Your task to perform on an android device: Open Youtube and go to "Your channel" Image 0: 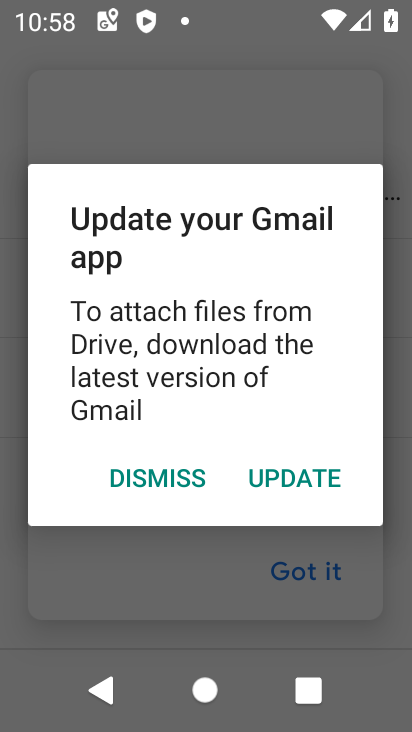
Step 0: press home button
Your task to perform on an android device: Open Youtube and go to "Your channel" Image 1: 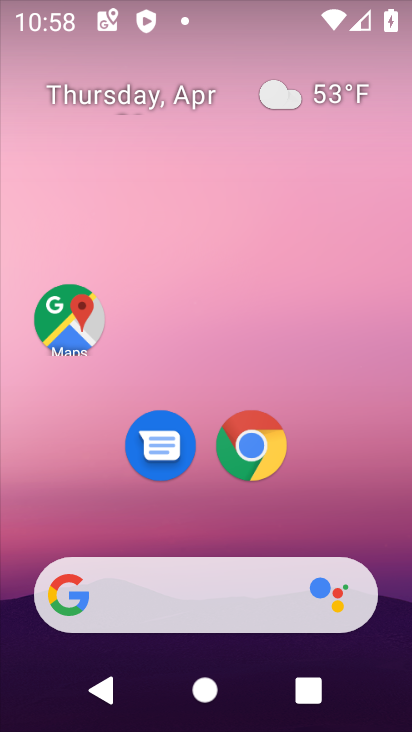
Step 1: drag from (156, 594) to (332, 94)
Your task to perform on an android device: Open Youtube and go to "Your channel" Image 2: 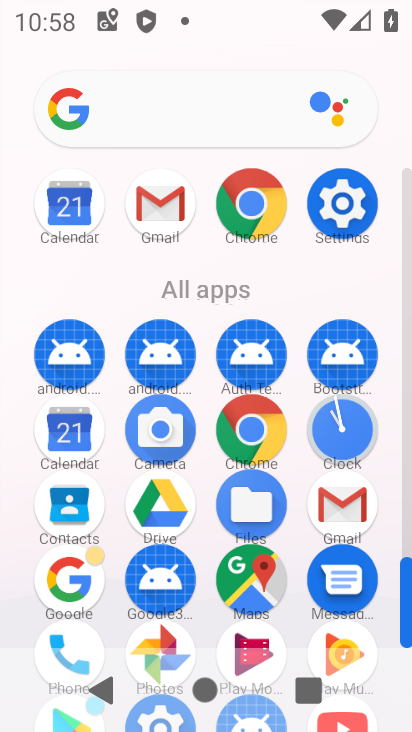
Step 2: drag from (203, 634) to (375, 168)
Your task to perform on an android device: Open Youtube and go to "Your channel" Image 3: 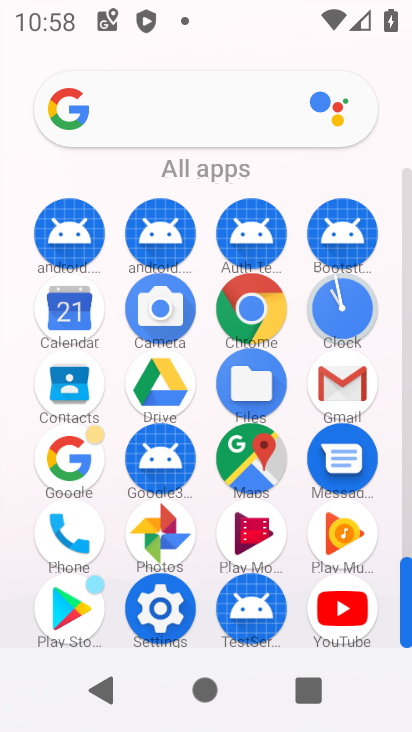
Step 3: click (343, 578)
Your task to perform on an android device: Open Youtube and go to "Your channel" Image 4: 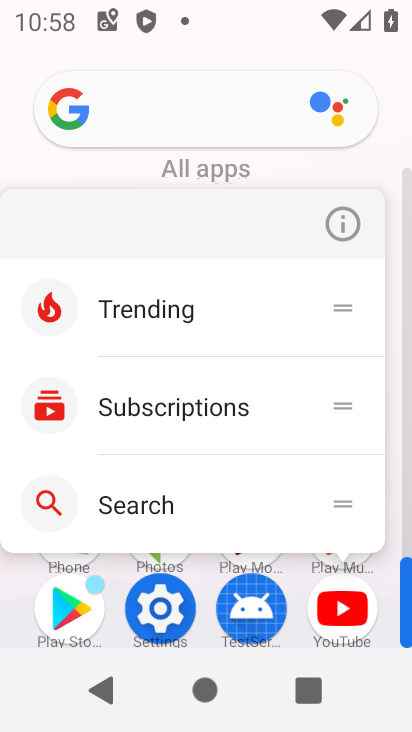
Step 4: click (336, 602)
Your task to perform on an android device: Open Youtube and go to "Your channel" Image 5: 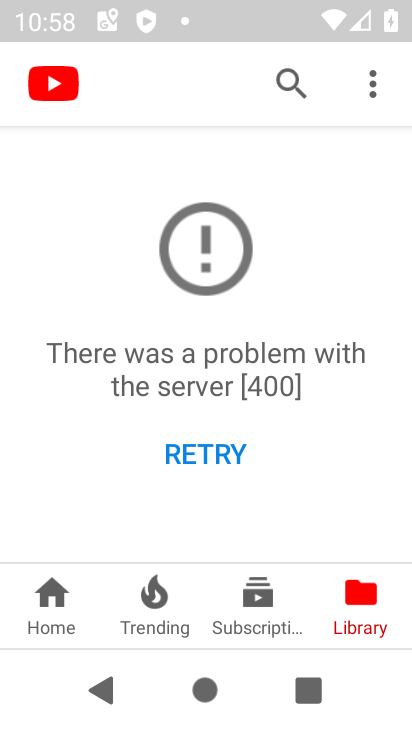
Step 5: click (373, 86)
Your task to perform on an android device: Open Youtube and go to "Your channel" Image 6: 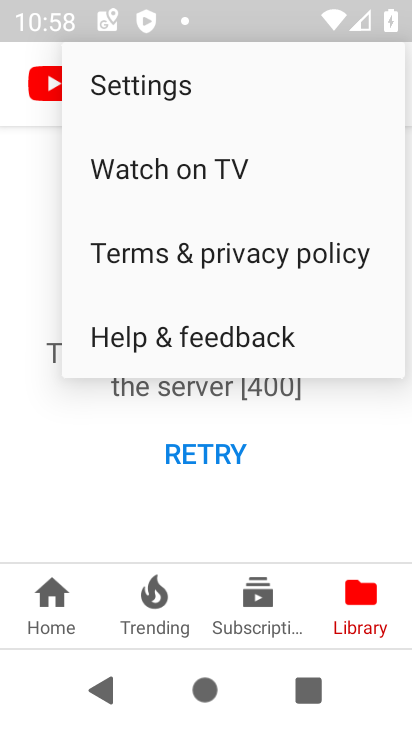
Step 6: task complete